Your task to perform on an android device: turn notification dots off Image 0: 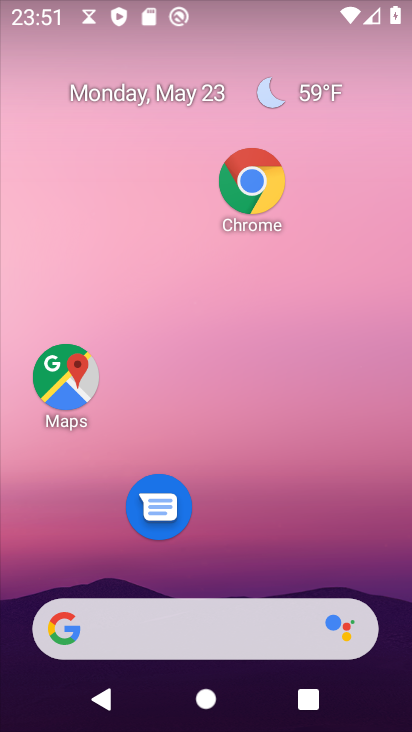
Step 0: drag from (320, 467) to (290, 299)
Your task to perform on an android device: turn notification dots off Image 1: 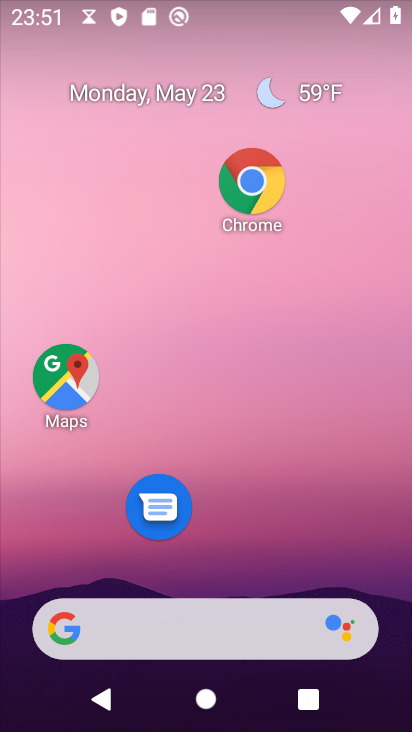
Step 1: drag from (261, 513) to (250, 326)
Your task to perform on an android device: turn notification dots off Image 2: 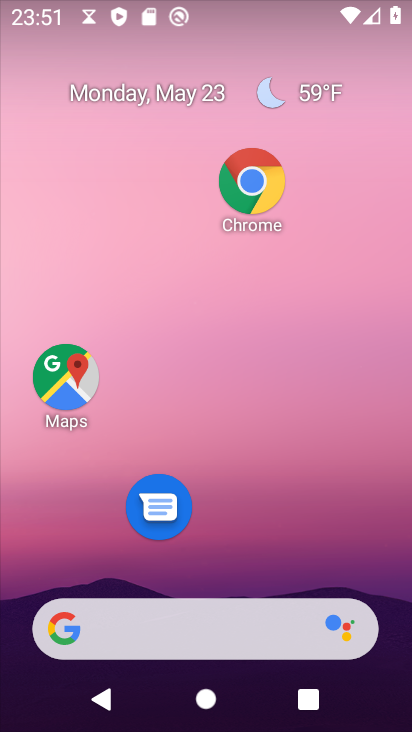
Step 2: drag from (239, 585) to (224, 392)
Your task to perform on an android device: turn notification dots off Image 3: 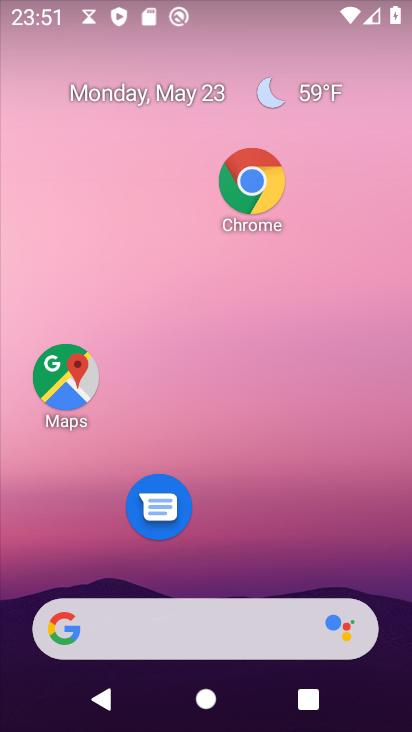
Step 3: drag from (244, 483) to (234, 262)
Your task to perform on an android device: turn notification dots off Image 4: 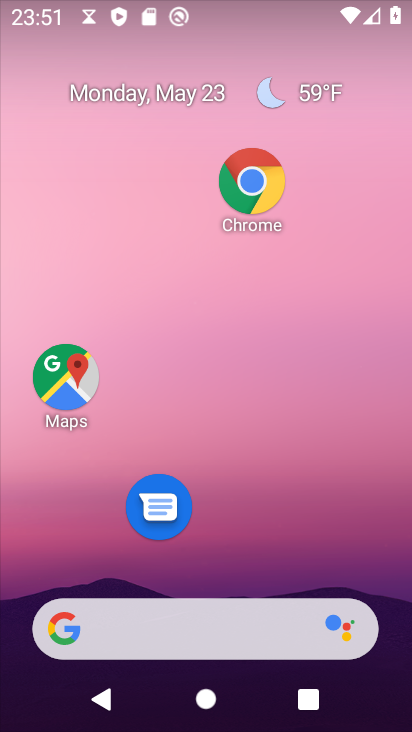
Step 4: drag from (252, 491) to (322, 163)
Your task to perform on an android device: turn notification dots off Image 5: 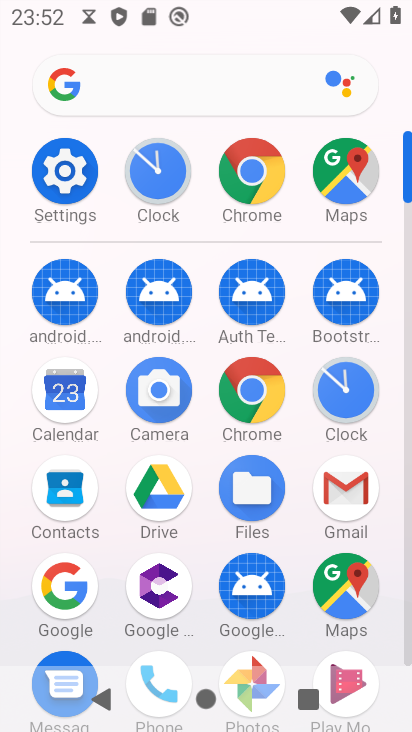
Step 5: click (78, 159)
Your task to perform on an android device: turn notification dots off Image 6: 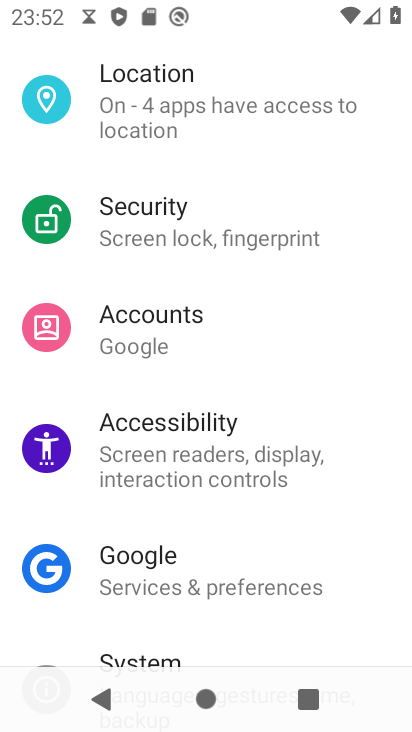
Step 6: drag from (318, 169) to (304, 353)
Your task to perform on an android device: turn notification dots off Image 7: 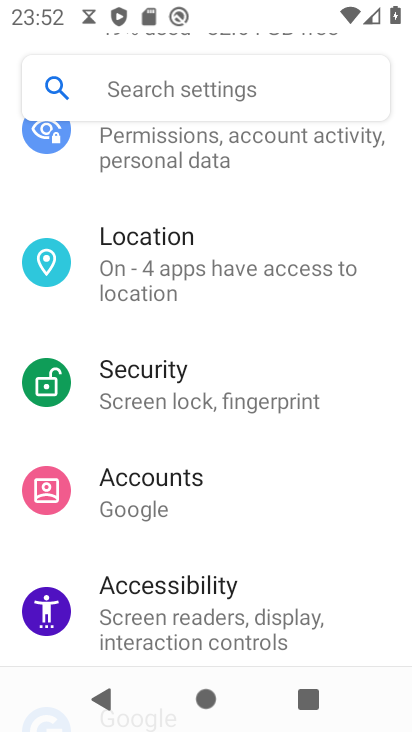
Step 7: click (237, 88)
Your task to perform on an android device: turn notification dots off Image 8: 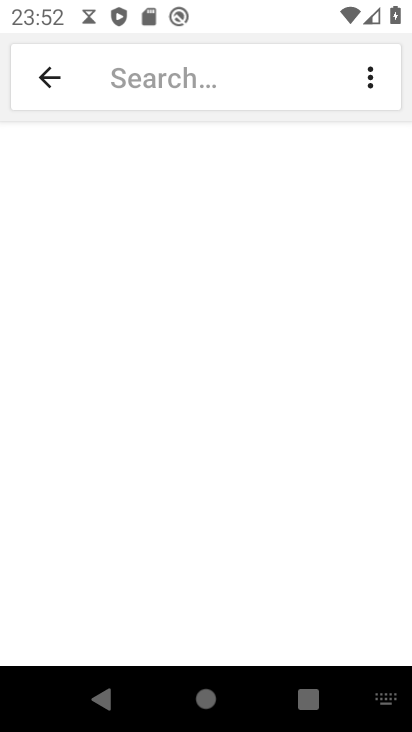
Step 8: type " notification dots "
Your task to perform on an android device: turn notification dots off Image 9: 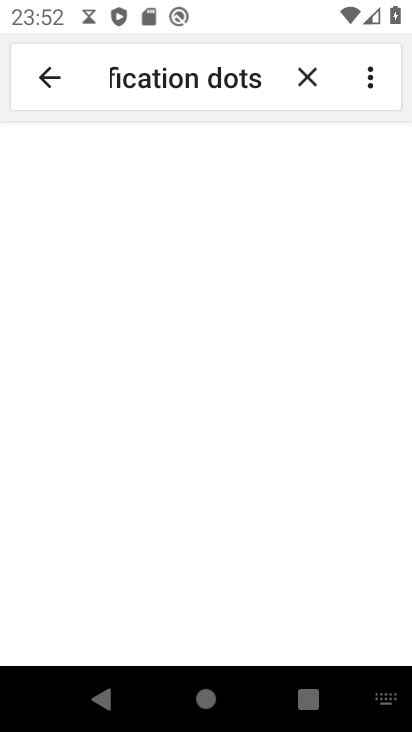
Step 9: click (308, 225)
Your task to perform on an android device: turn notification dots off Image 10: 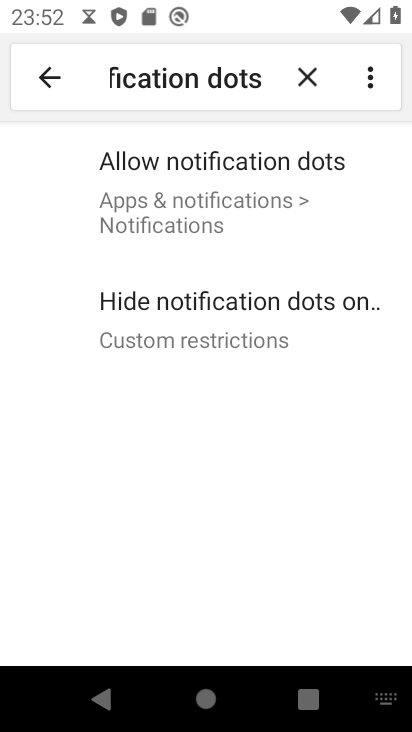
Step 10: click (233, 181)
Your task to perform on an android device: turn notification dots off Image 11: 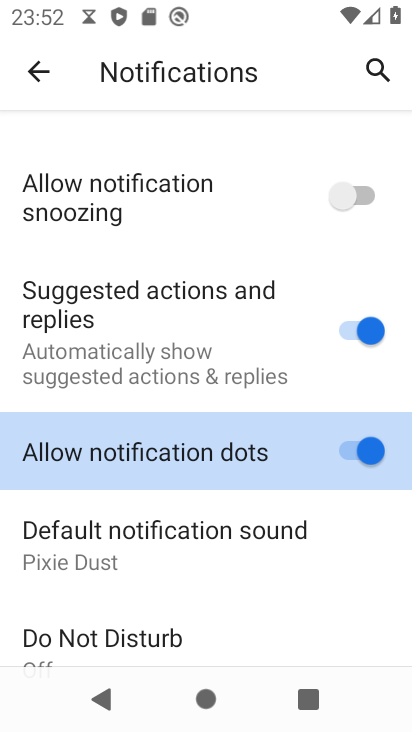
Step 11: click (359, 450)
Your task to perform on an android device: turn notification dots off Image 12: 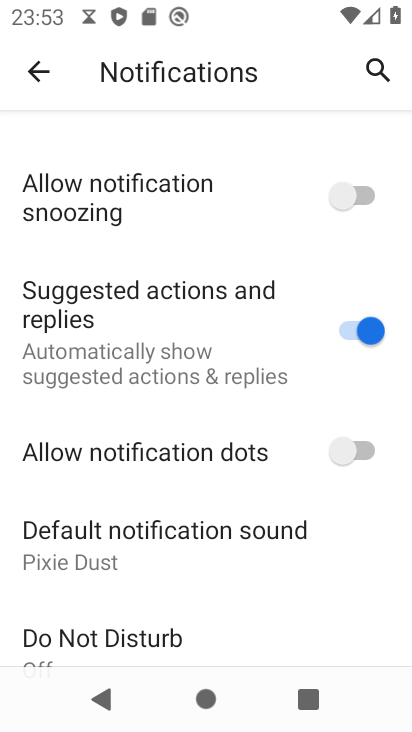
Step 12: task complete